Your task to perform on an android device: change keyboard looks Image 0: 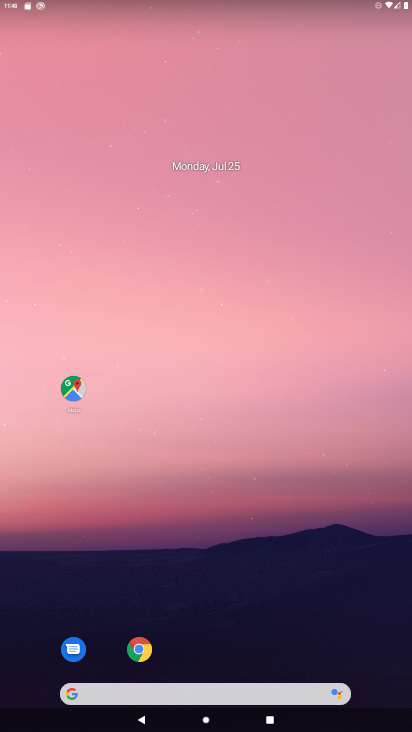
Step 0: drag from (373, 657) to (282, 224)
Your task to perform on an android device: change keyboard looks Image 1: 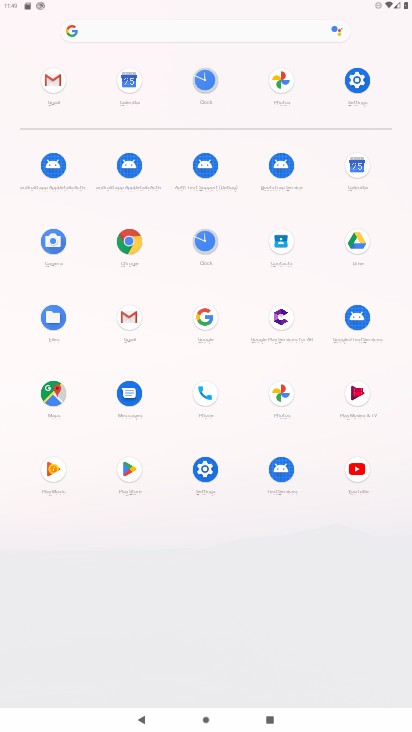
Step 1: click (204, 470)
Your task to perform on an android device: change keyboard looks Image 2: 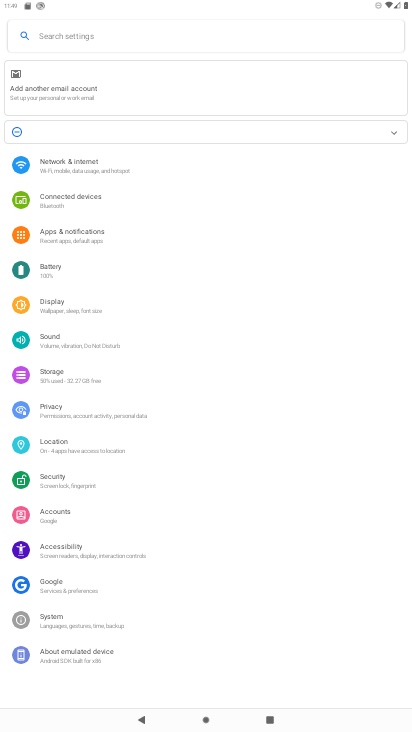
Step 2: click (53, 615)
Your task to perform on an android device: change keyboard looks Image 3: 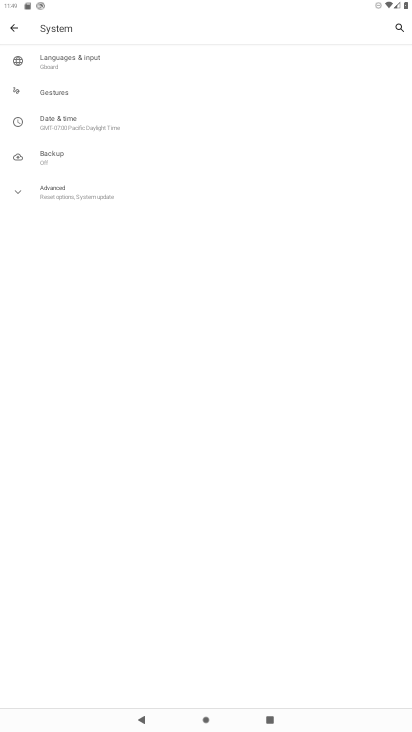
Step 3: click (60, 58)
Your task to perform on an android device: change keyboard looks Image 4: 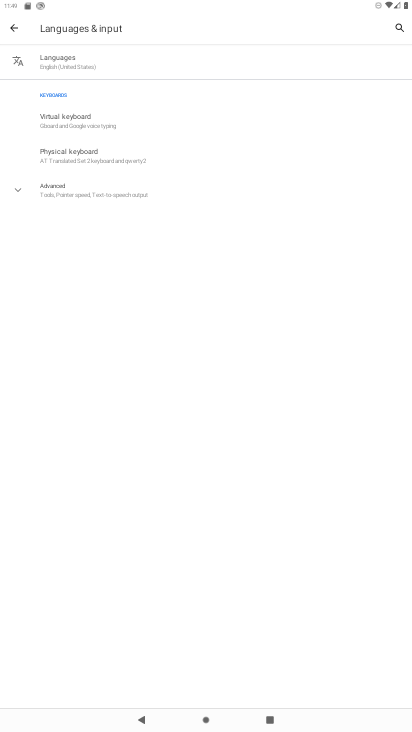
Step 4: click (69, 159)
Your task to perform on an android device: change keyboard looks Image 5: 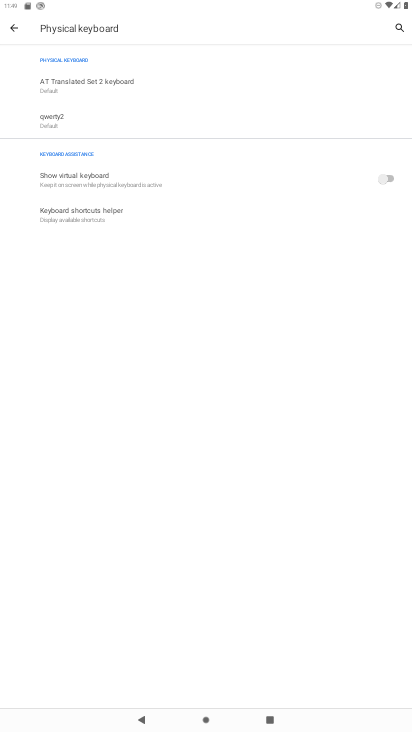
Step 5: click (50, 126)
Your task to perform on an android device: change keyboard looks Image 6: 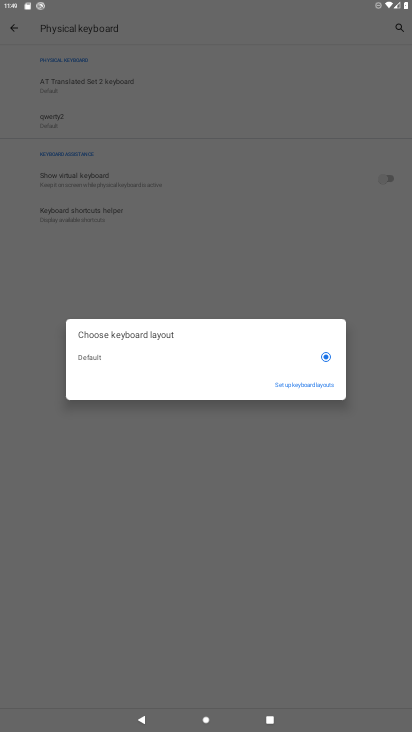
Step 6: click (307, 377)
Your task to perform on an android device: change keyboard looks Image 7: 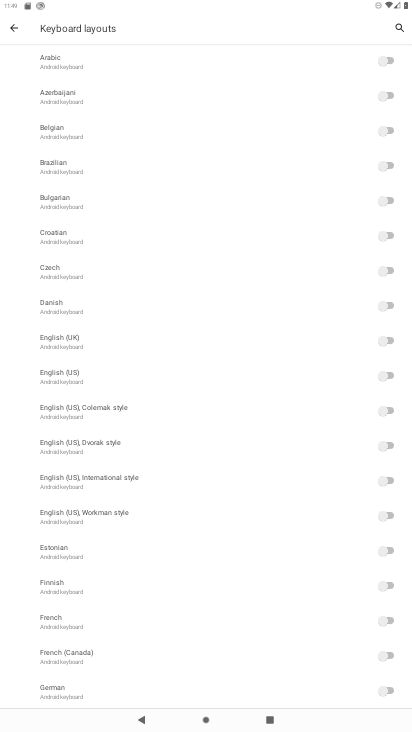
Step 7: click (389, 479)
Your task to perform on an android device: change keyboard looks Image 8: 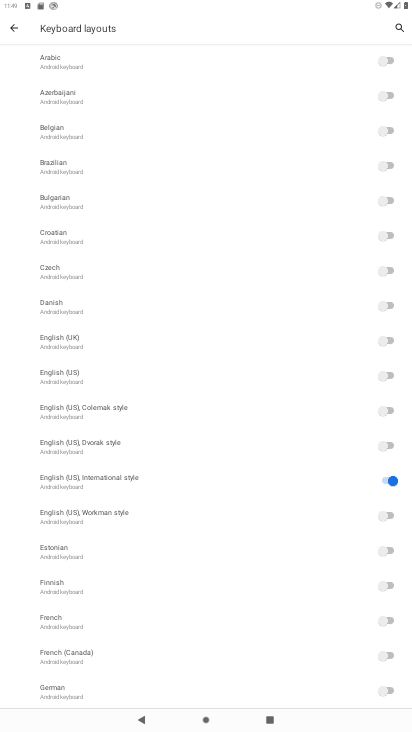
Step 8: task complete